Your task to perform on an android device: all mails in gmail Image 0: 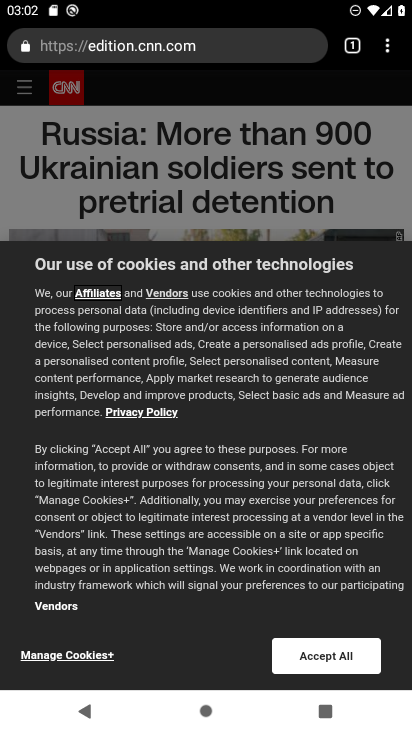
Step 0: press home button
Your task to perform on an android device: all mails in gmail Image 1: 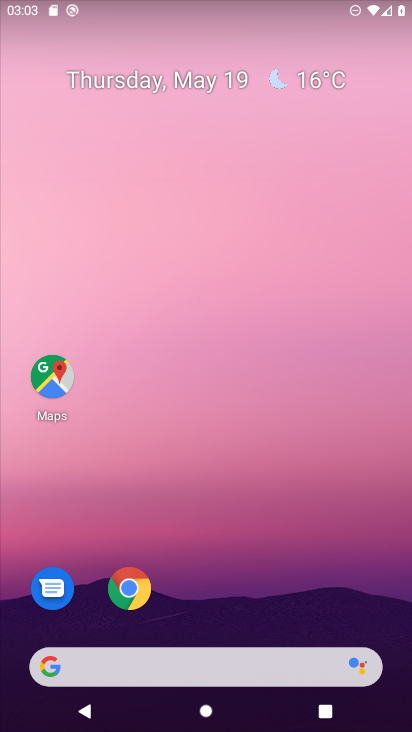
Step 1: drag from (209, 606) to (286, 201)
Your task to perform on an android device: all mails in gmail Image 2: 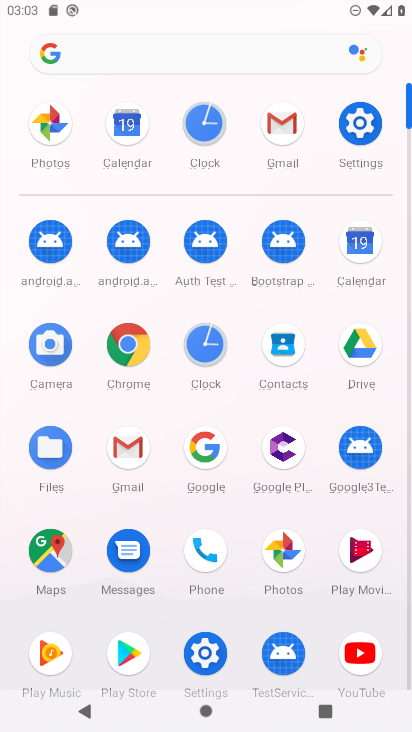
Step 2: click (272, 124)
Your task to perform on an android device: all mails in gmail Image 3: 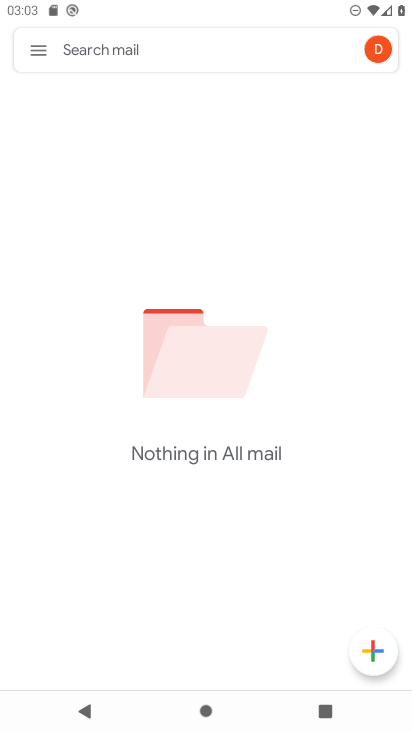
Step 3: task complete